Your task to perform on an android device: Show me some nice wallpapers for my desktop Image 0: 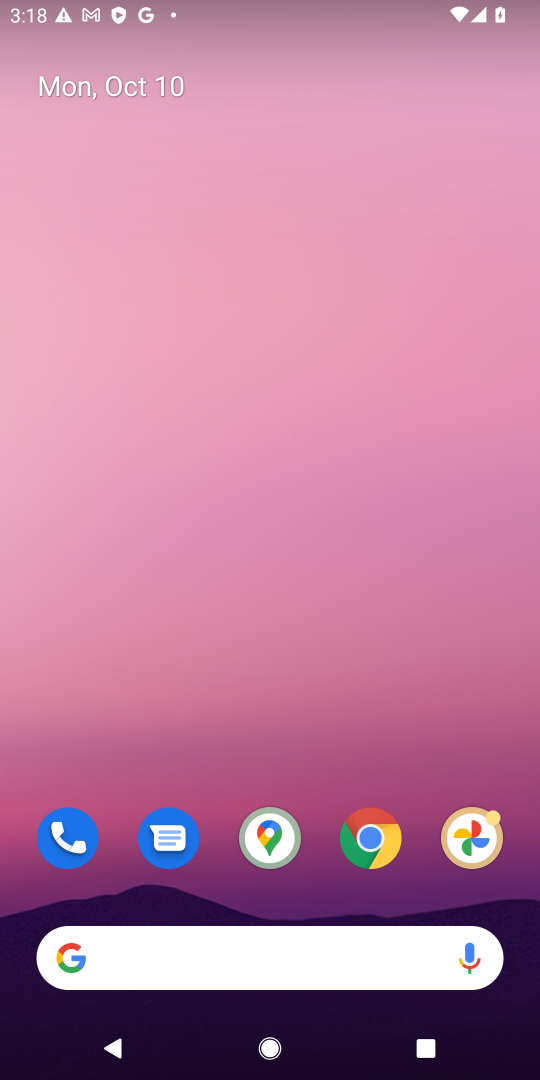
Step 0: click (363, 842)
Your task to perform on an android device: Show me some nice wallpapers for my desktop Image 1: 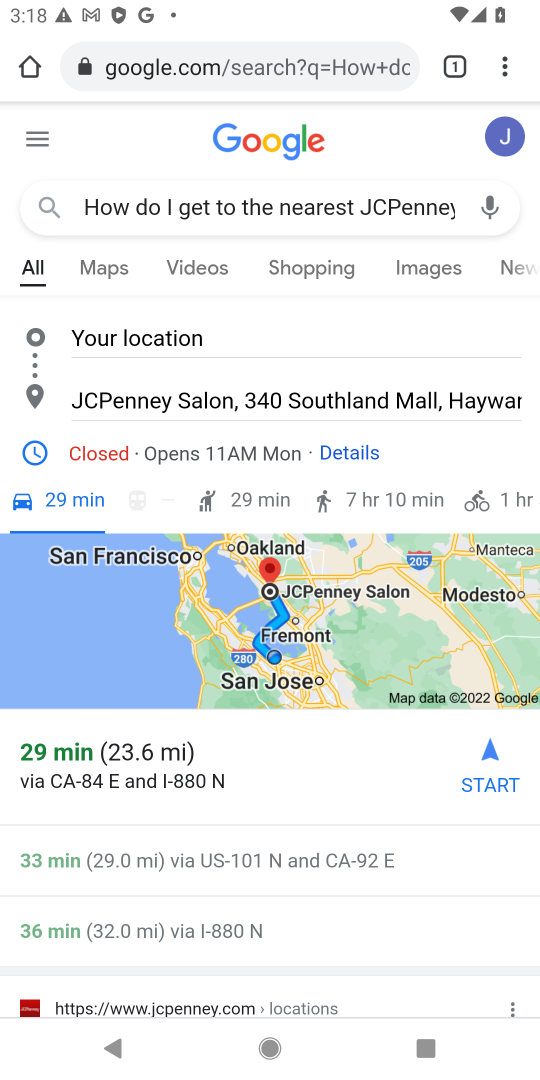
Step 1: click (280, 67)
Your task to perform on an android device: Show me some nice wallpapers for my desktop Image 2: 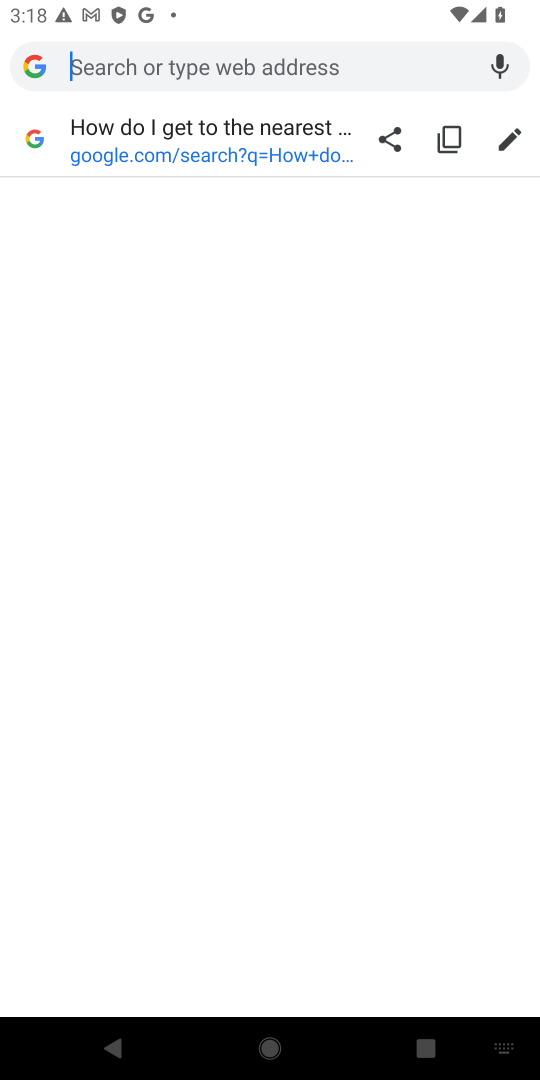
Step 2: type "Show me some nice wallpapers for my desktop"
Your task to perform on an android device: Show me some nice wallpapers for my desktop Image 3: 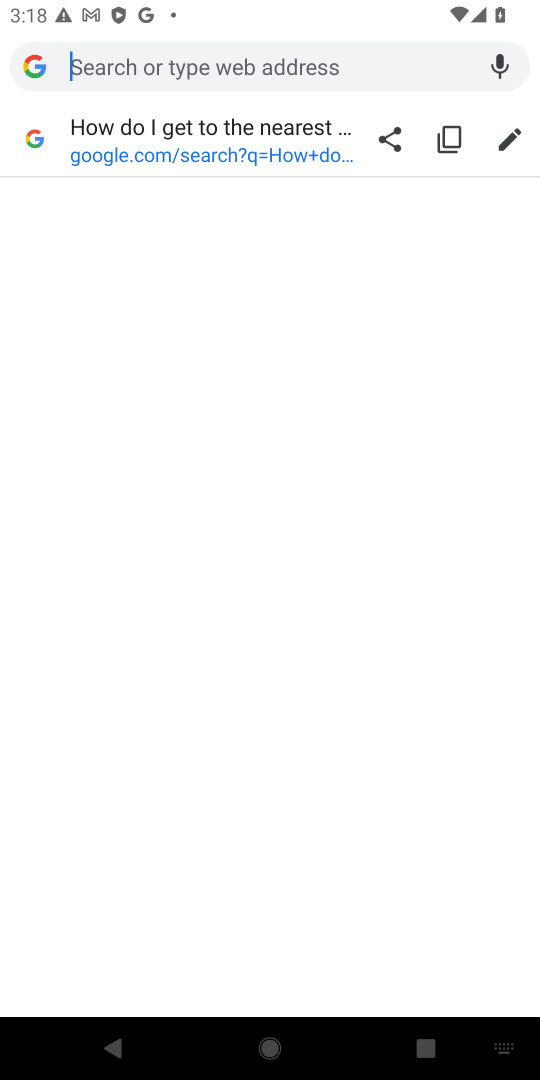
Step 3: click (225, 67)
Your task to perform on an android device: Show me some nice wallpapers for my desktop Image 4: 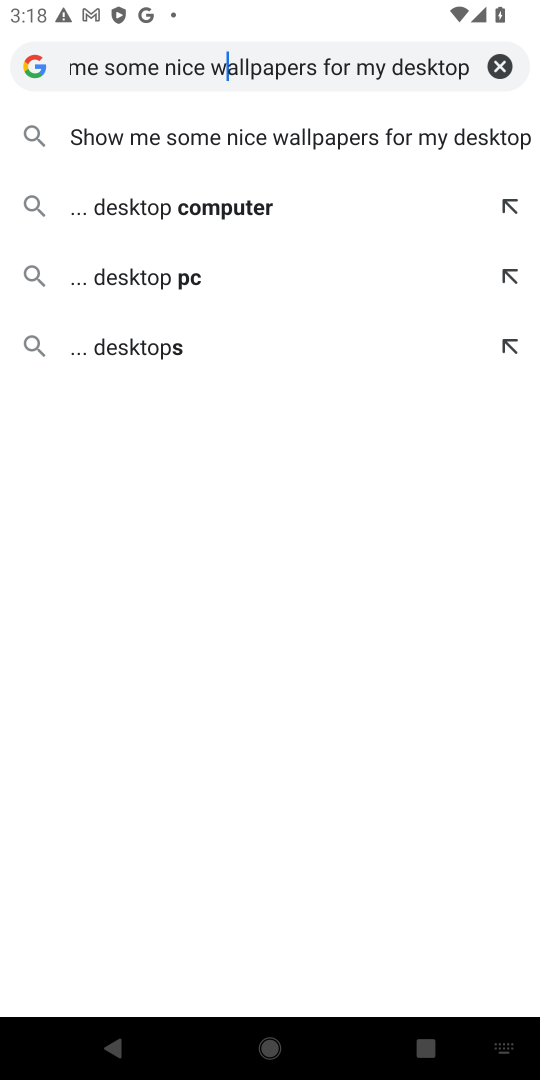
Step 4: type "Show me some nice wallpapers for my desktop"
Your task to perform on an android device: Show me some nice wallpapers for my desktop Image 5: 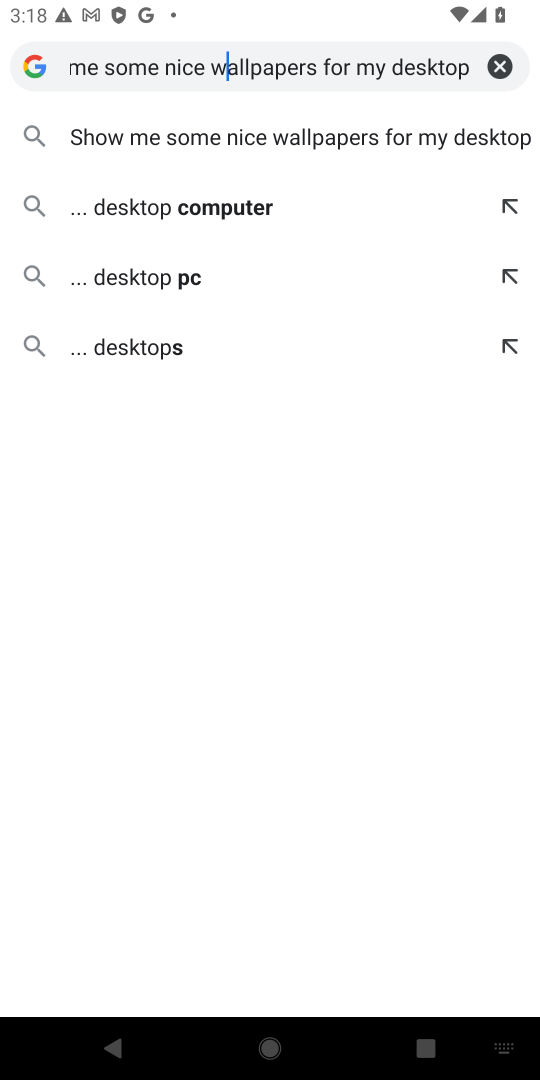
Step 5: click (287, 130)
Your task to perform on an android device: Show me some nice wallpapers for my desktop Image 6: 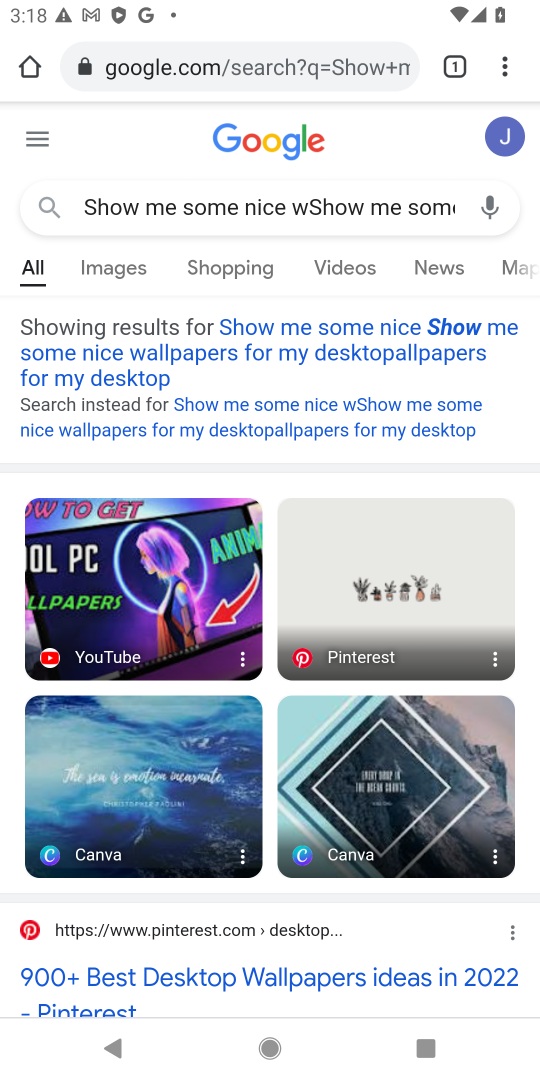
Step 6: task complete